Your task to perform on an android device: toggle priority inbox in the gmail app Image 0: 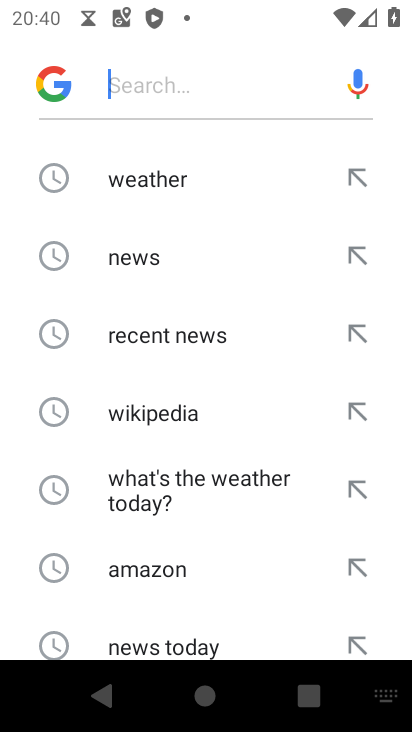
Step 0: press home button
Your task to perform on an android device: toggle priority inbox in the gmail app Image 1: 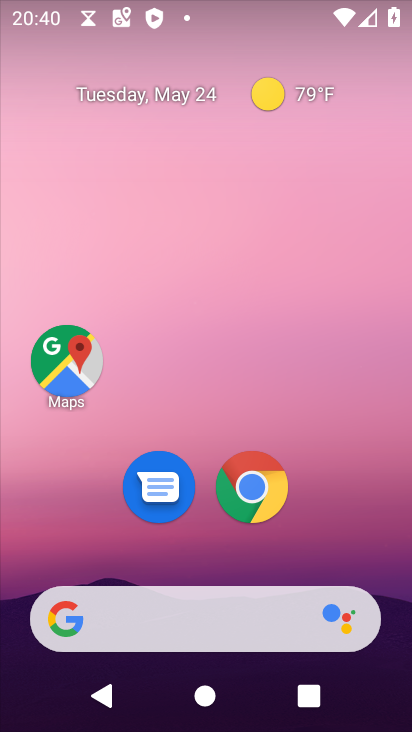
Step 1: drag from (10, 634) to (235, 127)
Your task to perform on an android device: toggle priority inbox in the gmail app Image 2: 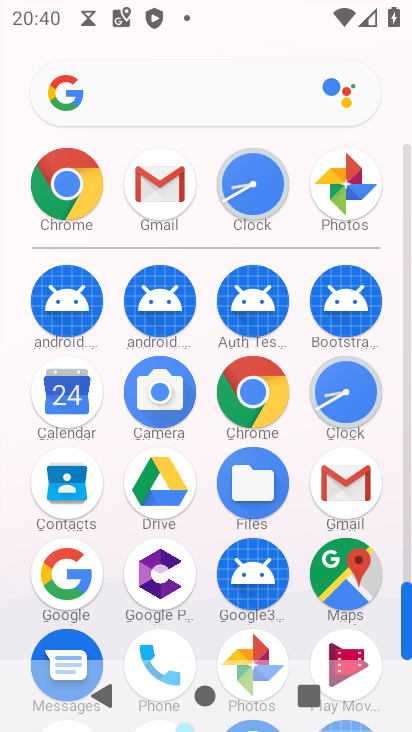
Step 2: click (349, 482)
Your task to perform on an android device: toggle priority inbox in the gmail app Image 3: 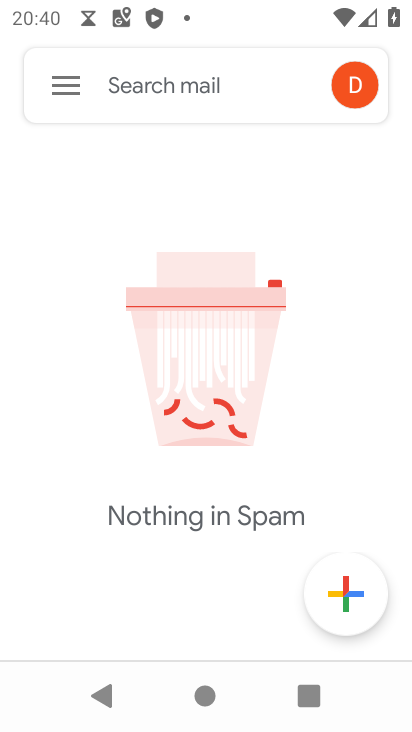
Step 3: click (68, 96)
Your task to perform on an android device: toggle priority inbox in the gmail app Image 4: 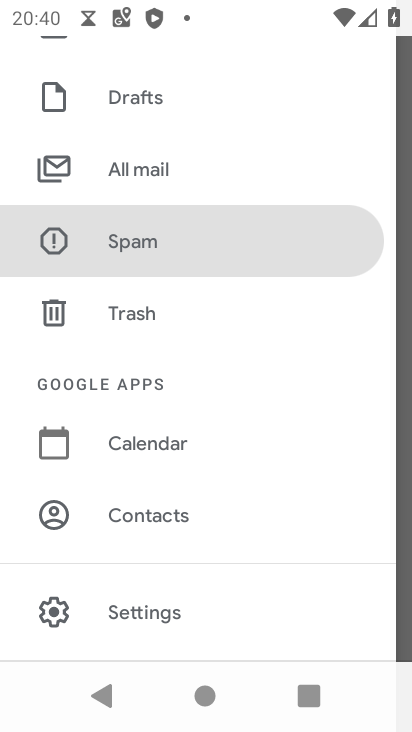
Step 4: drag from (220, 150) to (153, 632)
Your task to perform on an android device: toggle priority inbox in the gmail app Image 5: 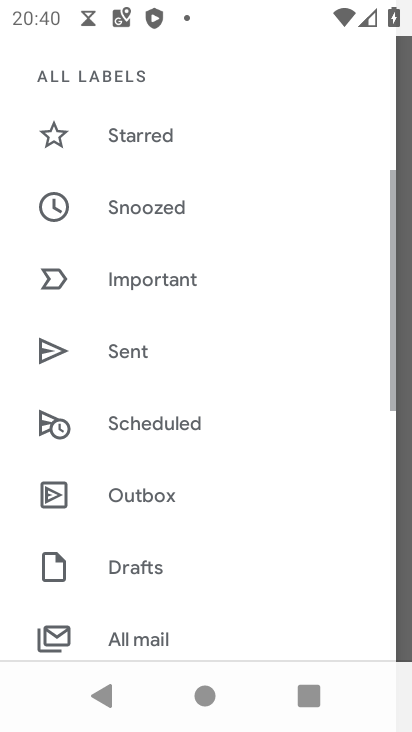
Step 5: drag from (30, 518) to (382, 14)
Your task to perform on an android device: toggle priority inbox in the gmail app Image 6: 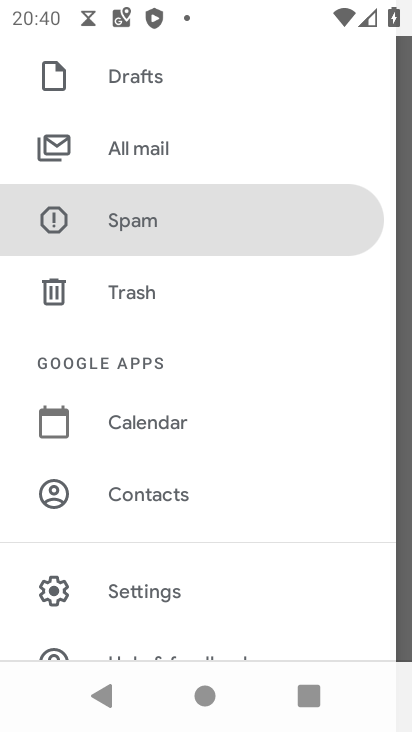
Step 6: click (108, 598)
Your task to perform on an android device: toggle priority inbox in the gmail app Image 7: 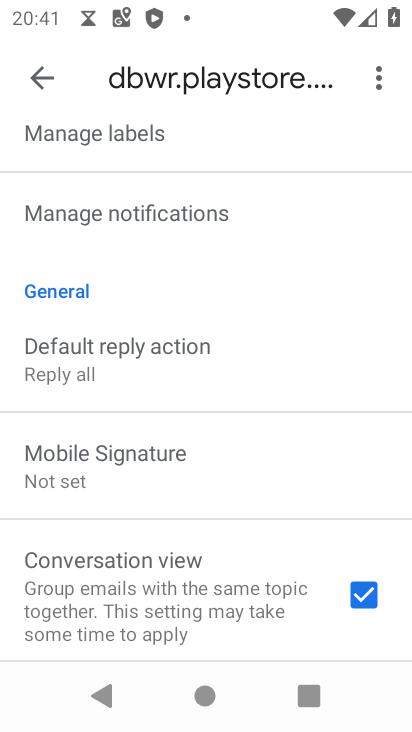
Step 7: drag from (110, 600) to (236, 198)
Your task to perform on an android device: toggle priority inbox in the gmail app Image 8: 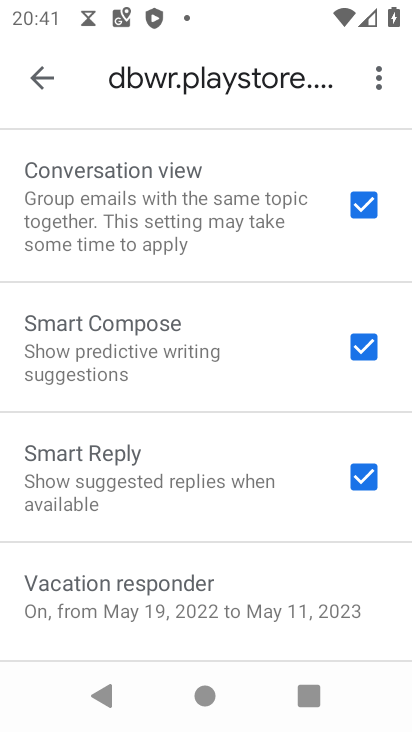
Step 8: drag from (163, 223) to (156, 569)
Your task to perform on an android device: toggle priority inbox in the gmail app Image 9: 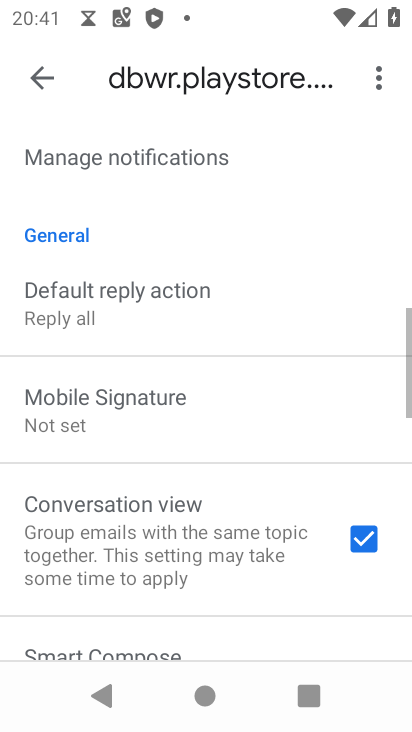
Step 9: drag from (145, 156) to (148, 620)
Your task to perform on an android device: toggle priority inbox in the gmail app Image 10: 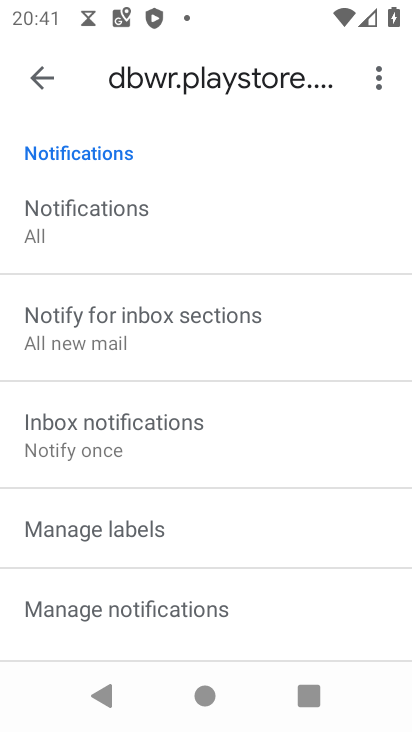
Step 10: drag from (98, 175) to (100, 518)
Your task to perform on an android device: toggle priority inbox in the gmail app Image 11: 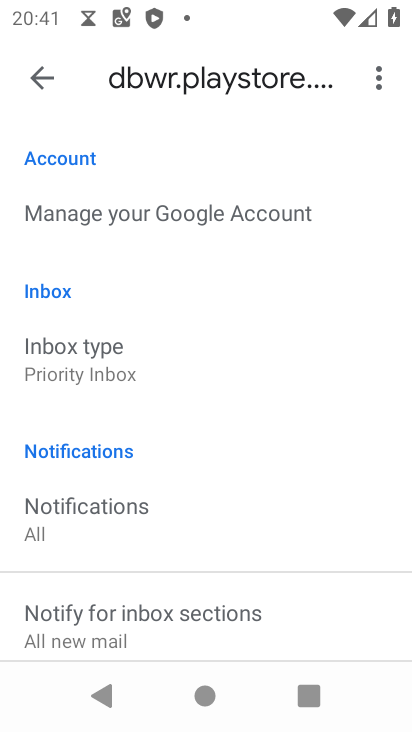
Step 11: drag from (104, 204) to (116, 495)
Your task to perform on an android device: toggle priority inbox in the gmail app Image 12: 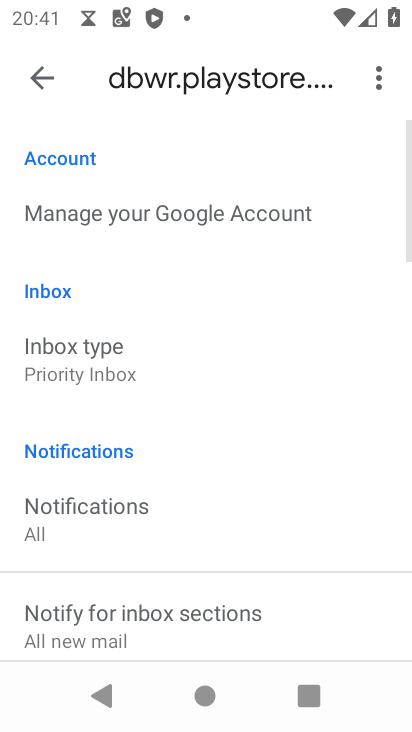
Step 12: click (108, 343)
Your task to perform on an android device: toggle priority inbox in the gmail app Image 13: 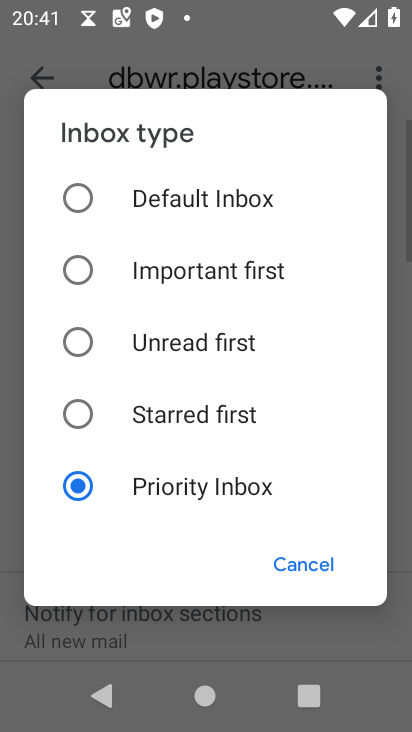
Step 13: click (74, 422)
Your task to perform on an android device: toggle priority inbox in the gmail app Image 14: 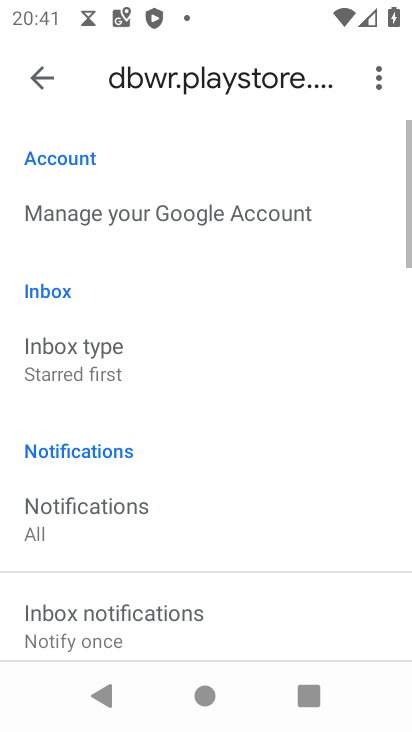
Step 14: task complete